Your task to perform on an android device: Open Google Chrome and open the bookmarks view Image 0: 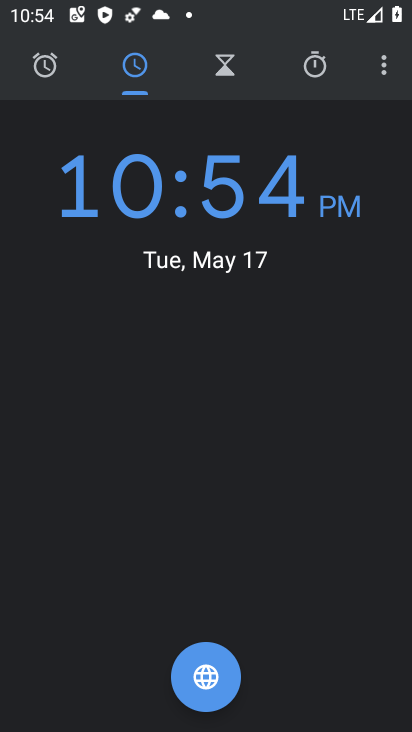
Step 0: press home button
Your task to perform on an android device: Open Google Chrome and open the bookmarks view Image 1: 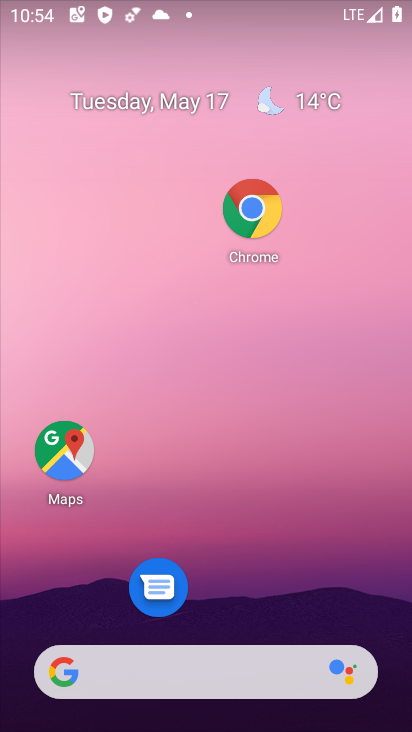
Step 1: click (257, 214)
Your task to perform on an android device: Open Google Chrome and open the bookmarks view Image 2: 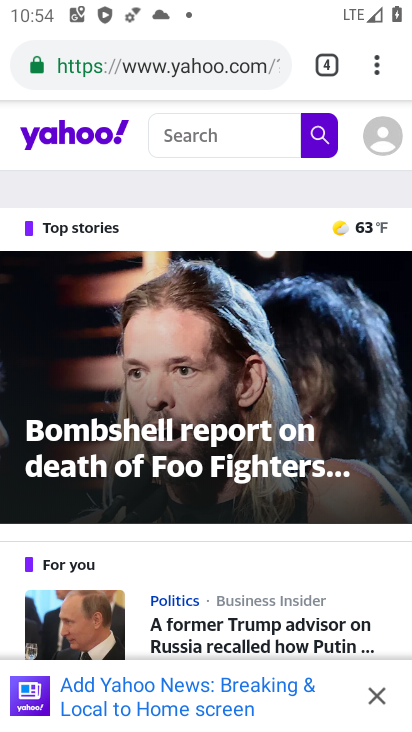
Step 2: click (386, 58)
Your task to perform on an android device: Open Google Chrome and open the bookmarks view Image 3: 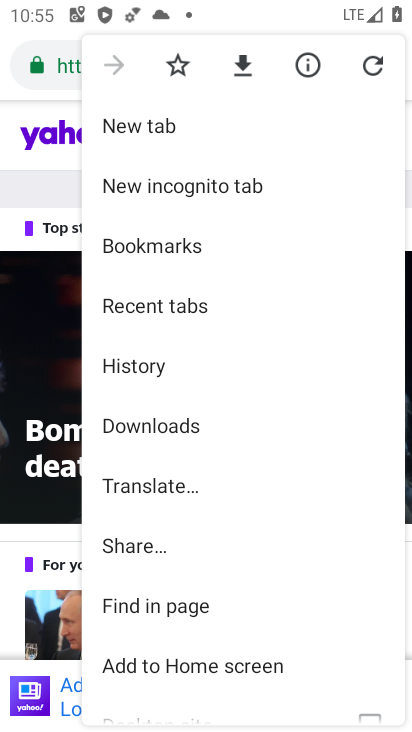
Step 3: click (162, 243)
Your task to perform on an android device: Open Google Chrome and open the bookmarks view Image 4: 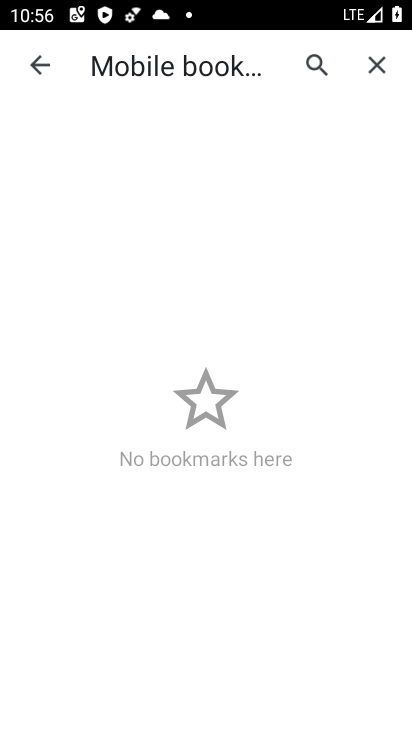
Step 4: task complete